Your task to perform on an android device: create a new album in the google photos Image 0: 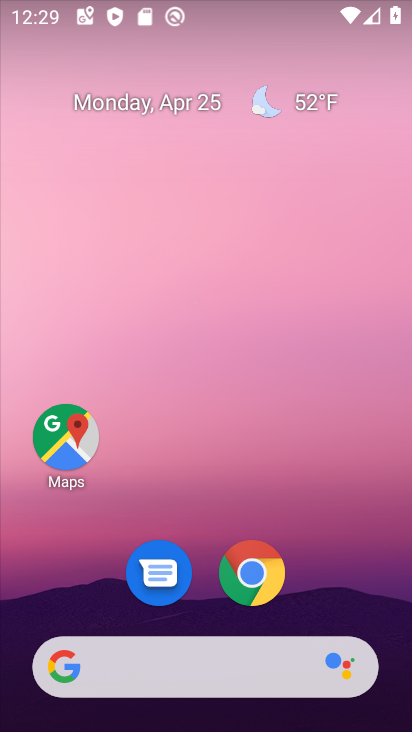
Step 0: drag from (347, 604) to (198, 53)
Your task to perform on an android device: create a new album in the google photos Image 1: 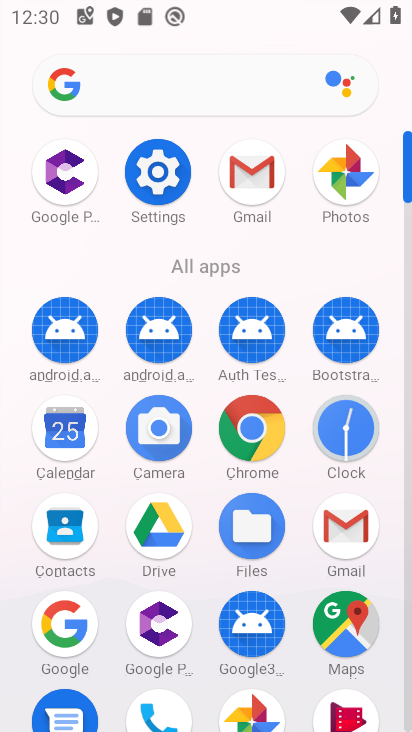
Step 1: click (241, 701)
Your task to perform on an android device: create a new album in the google photos Image 2: 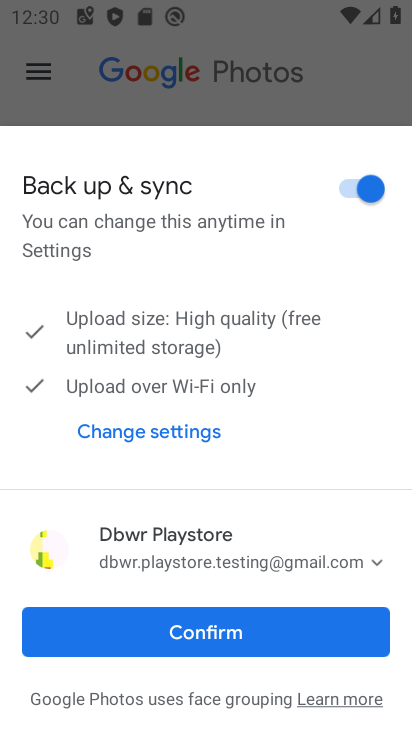
Step 2: click (201, 652)
Your task to perform on an android device: create a new album in the google photos Image 3: 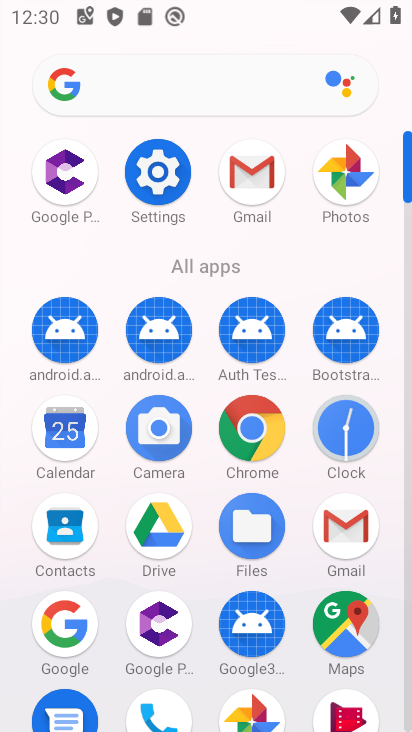
Step 3: click (335, 197)
Your task to perform on an android device: create a new album in the google photos Image 4: 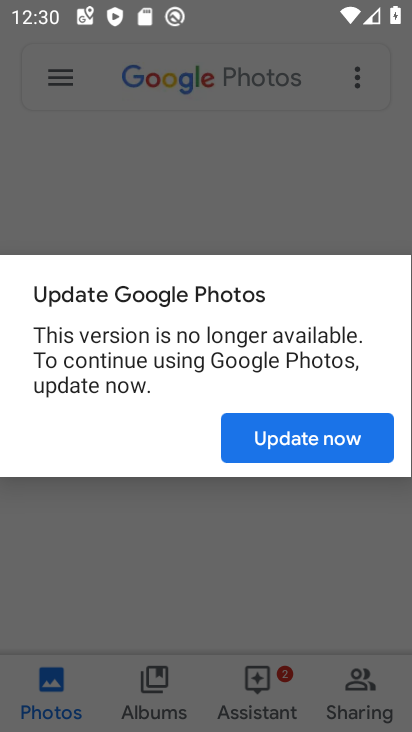
Step 4: click (312, 583)
Your task to perform on an android device: create a new album in the google photos Image 5: 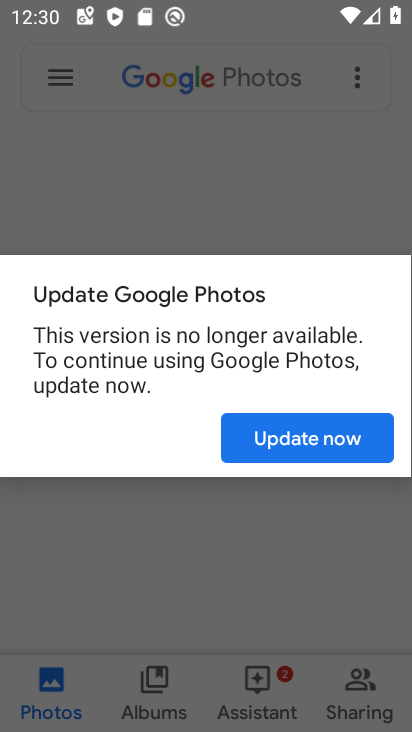
Step 5: click (299, 422)
Your task to perform on an android device: create a new album in the google photos Image 6: 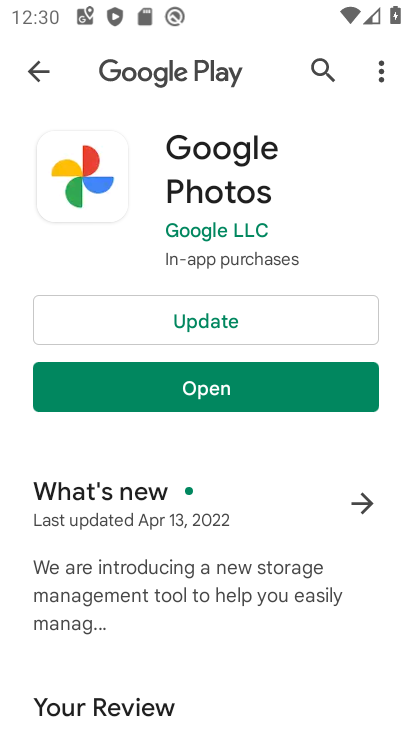
Step 6: click (207, 381)
Your task to perform on an android device: create a new album in the google photos Image 7: 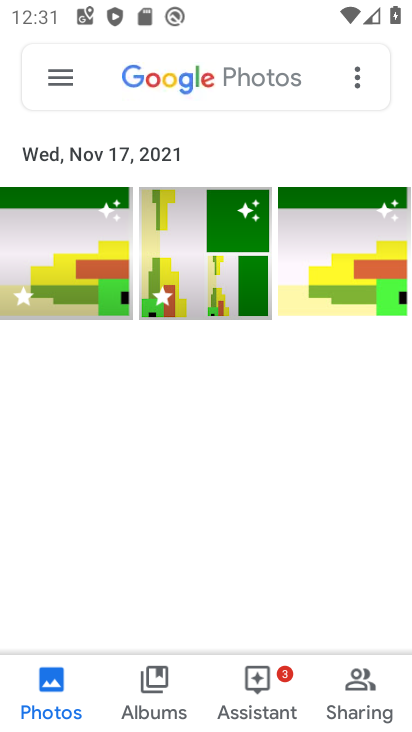
Step 7: click (71, 278)
Your task to perform on an android device: create a new album in the google photos Image 8: 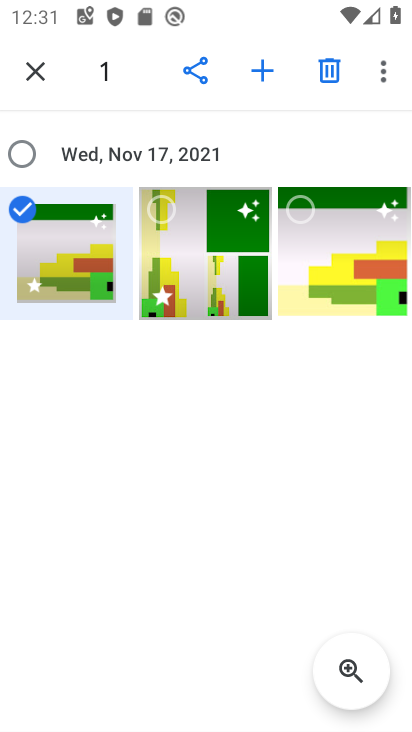
Step 8: click (256, 78)
Your task to perform on an android device: create a new album in the google photos Image 9: 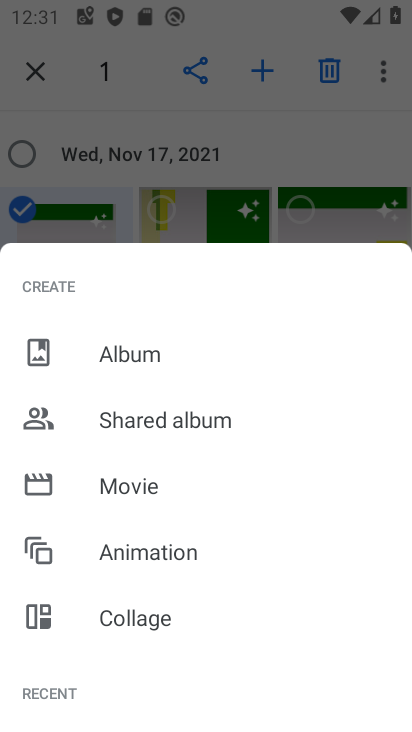
Step 9: click (100, 348)
Your task to perform on an android device: create a new album in the google photos Image 10: 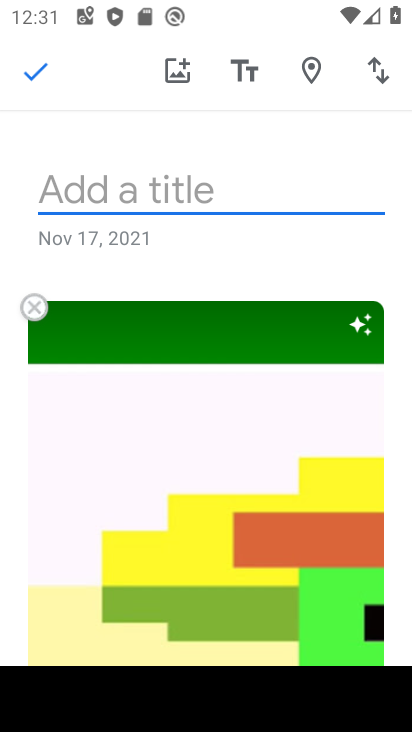
Step 10: type "etgv"
Your task to perform on an android device: create a new album in the google photos Image 11: 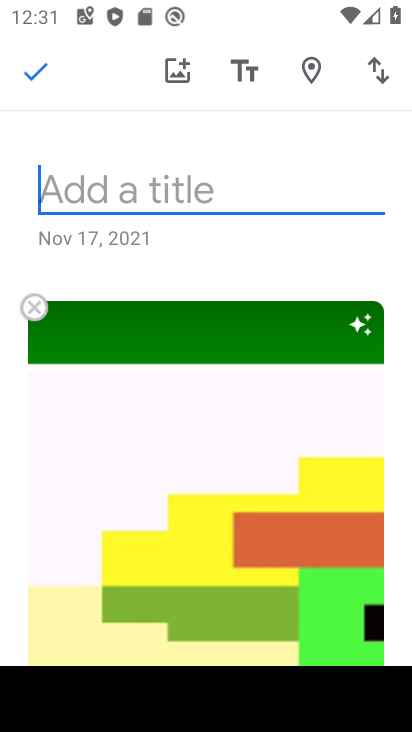
Step 11: click (38, 59)
Your task to perform on an android device: create a new album in the google photos Image 12: 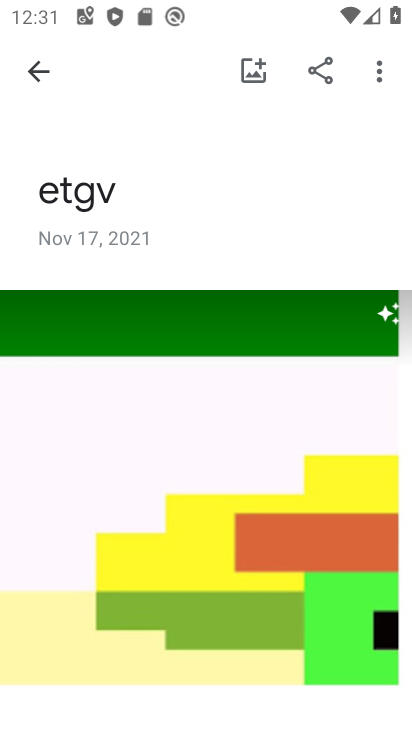
Step 12: task complete